Your task to perform on an android device: move a message to another label in the gmail app Image 0: 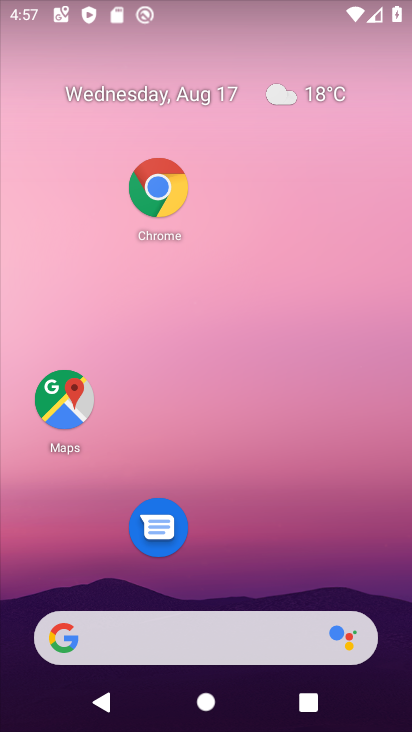
Step 0: drag from (230, 580) to (225, 58)
Your task to perform on an android device: move a message to another label in the gmail app Image 1: 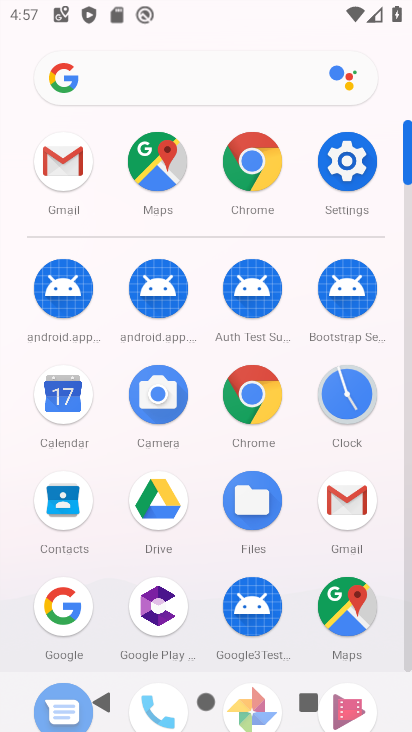
Step 1: click (66, 148)
Your task to perform on an android device: move a message to another label in the gmail app Image 2: 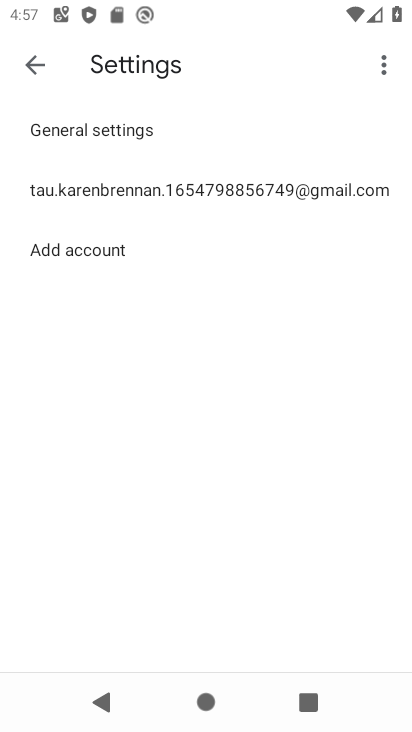
Step 2: click (41, 76)
Your task to perform on an android device: move a message to another label in the gmail app Image 3: 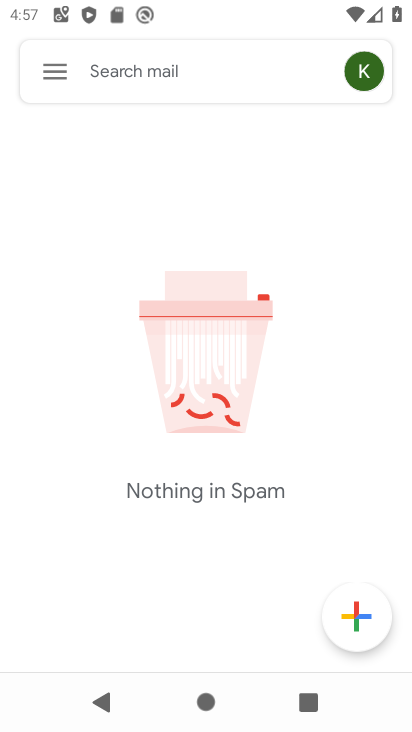
Step 3: click (42, 66)
Your task to perform on an android device: move a message to another label in the gmail app Image 4: 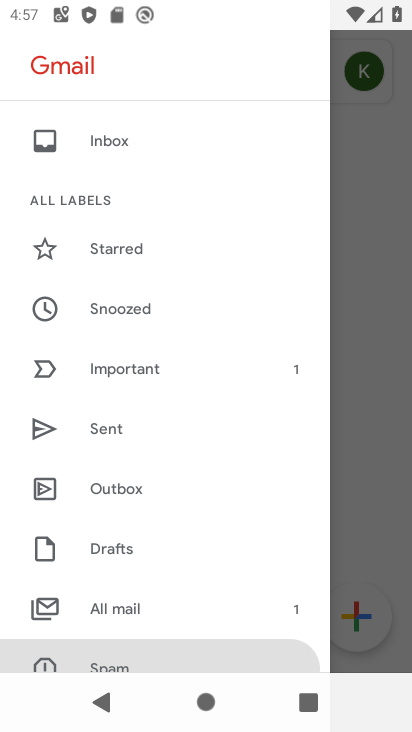
Step 4: click (162, 135)
Your task to perform on an android device: move a message to another label in the gmail app Image 5: 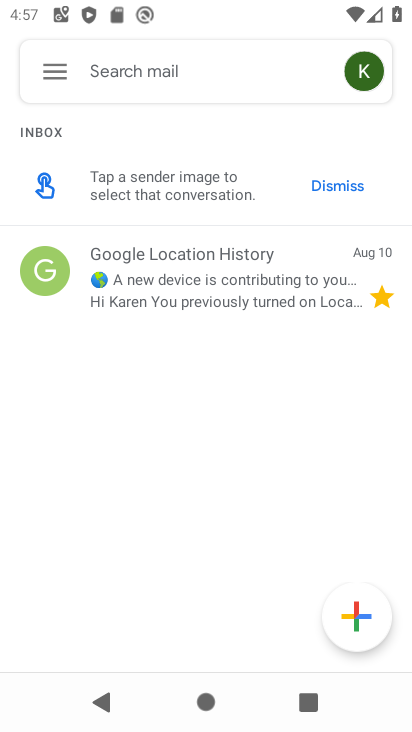
Step 5: click (47, 276)
Your task to perform on an android device: move a message to another label in the gmail app Image 6: 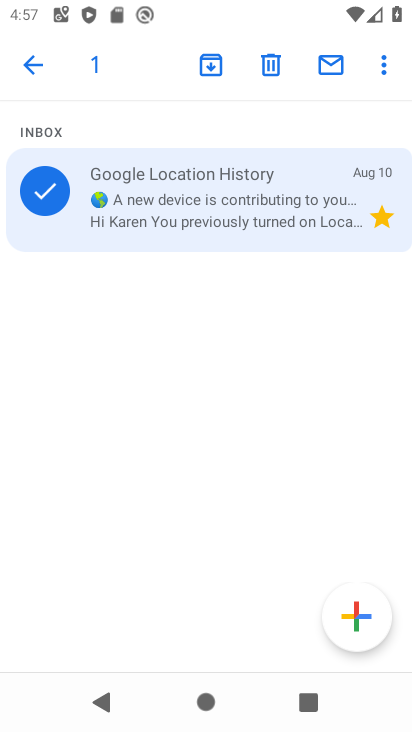
Step 6: click (390, 62)
Your task to perform on an android device: move a message to another label in the gmail app Image 7: 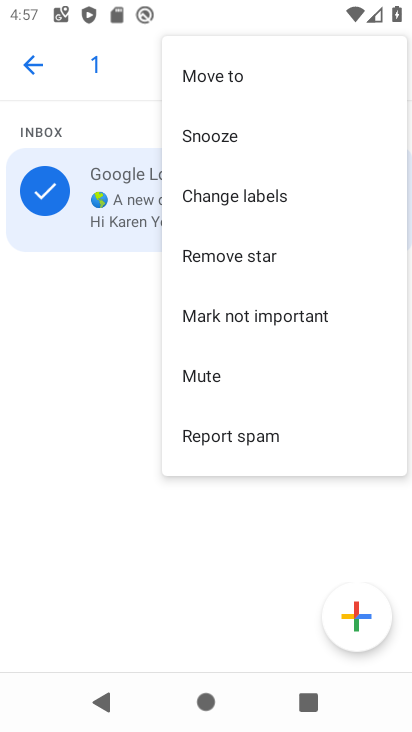
Step 7: click (285, 199)
Your task to perform on an android device: move a message to another label in the gmail app Image 8: 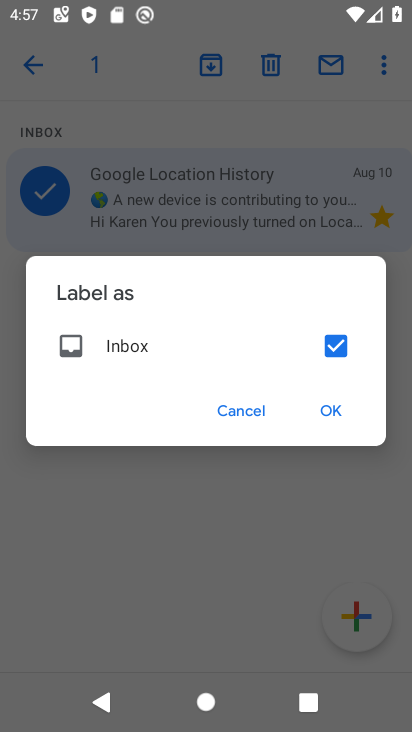
Step 8: click (331, 410)
Your task to perform on an android device: move a message to another label in the gmail app Image 9: 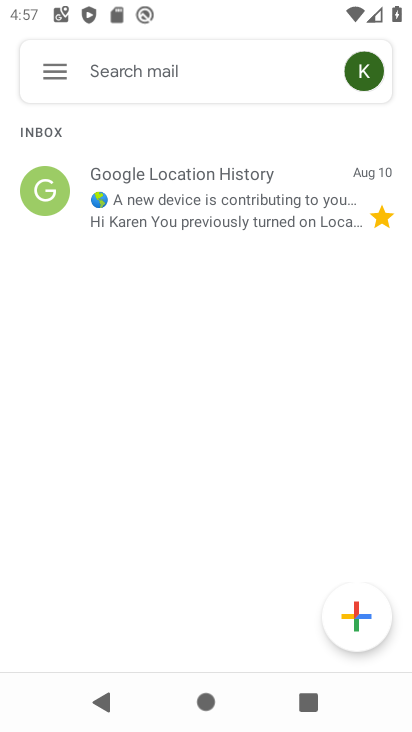
Step 9: task complete